Your task to perform on an android device: allow cookies in the chrome app Image 0: 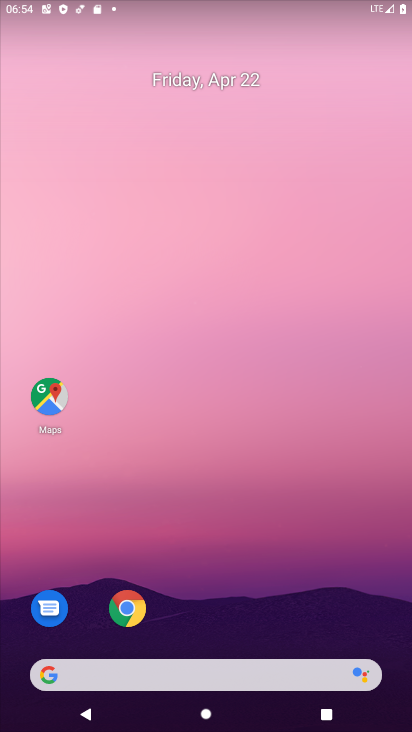
Step 0: drag from (243, 570) to (206, 186)
Your task to perform on an android device: allow cookies in the chrome app Image 1: 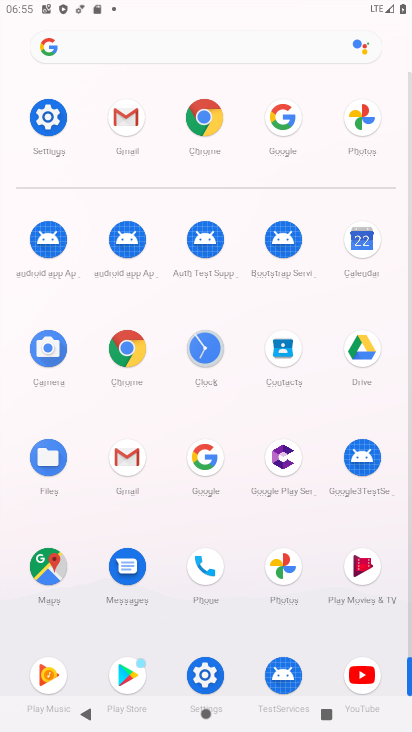
Step 1: click (197, 146)
Your task to perform on an android device: allow cookies in the chrome app Image 2: 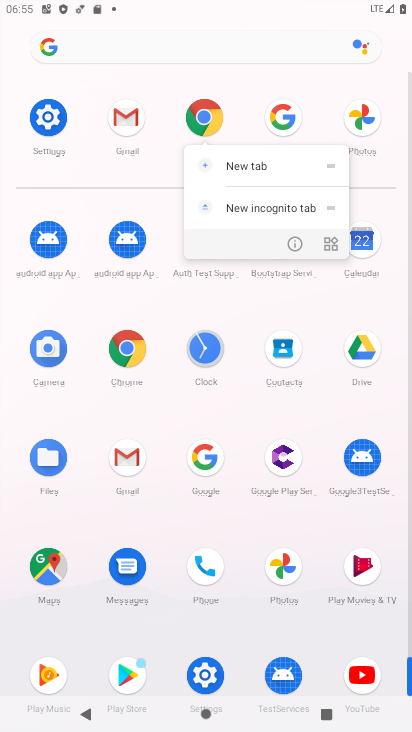
Step 2: click (204, 113)
Your task to perform on an android device: allow cookies in the chrome app Image 3: 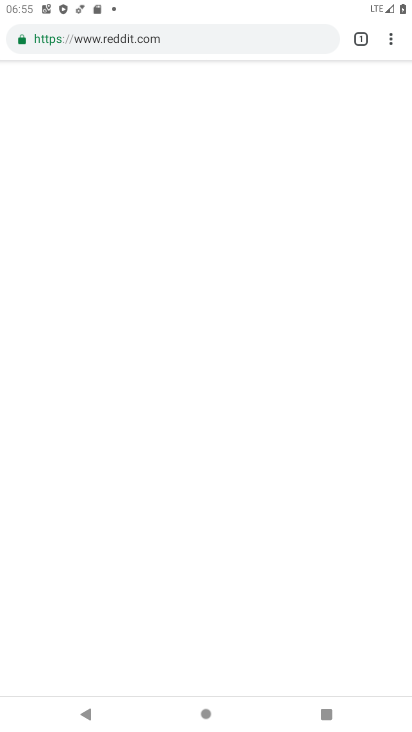
Step 3: click (392, 39)
Your task to perform on an android device: allow cookies in the chrome app Image 4: 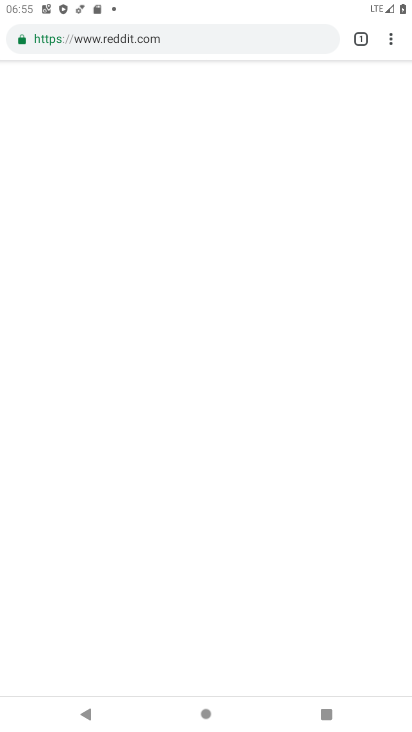
Step 4: click (393, 34)
Your task to perform on an android device: allow cookies in the chrome app Image 5: 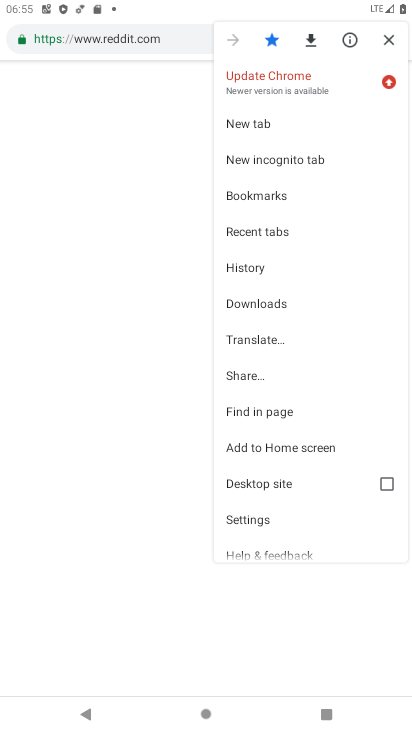
Step 5: click (264, 518)
Your task to perform on an android device: allow cookies in the chrome app Image 6: 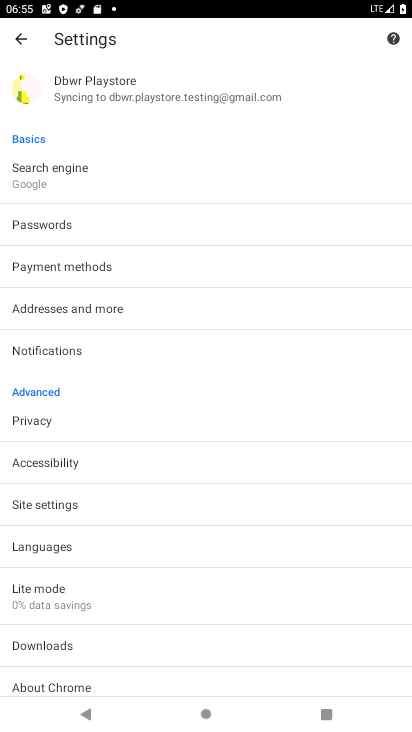
Step 6: click (42, 502)
Your task to perform on an android device: allow cookies in the chrome app Image 7: 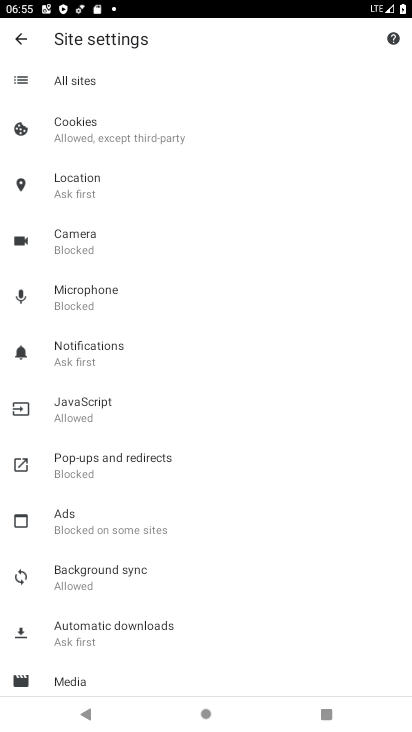
Step 7: click (78, 135)
Your task to perform on an android device: allow cookies in the chrome app Image 8: 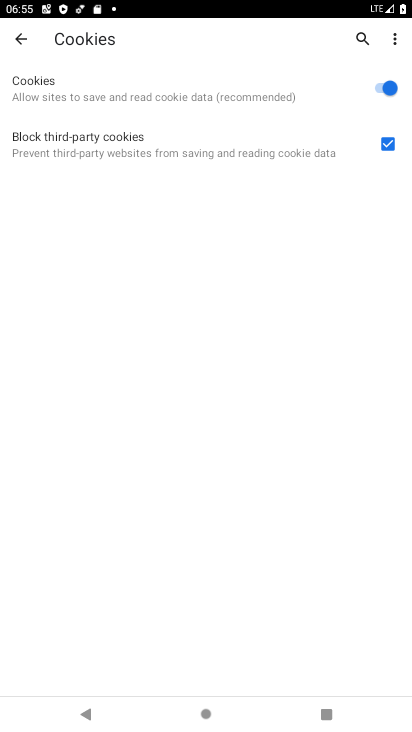
Step 8: task complete